Your task to perform on an android device: turn off improve location accuracy Image 0: 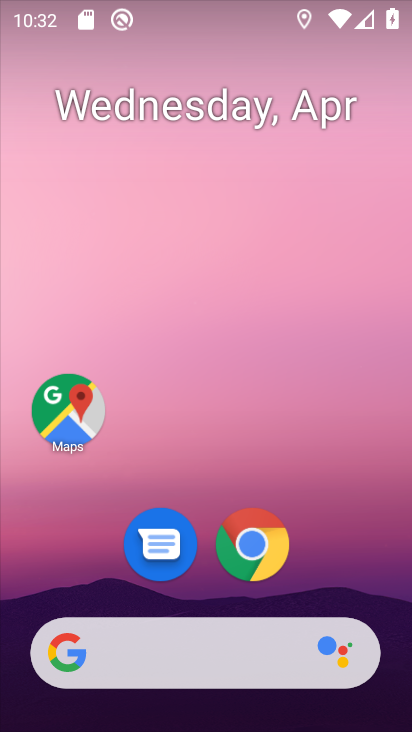
Step 0: drag from (325, 552) to (343, 0)
Your task to perform on an android device: turn off improve location accuracy Image 1: 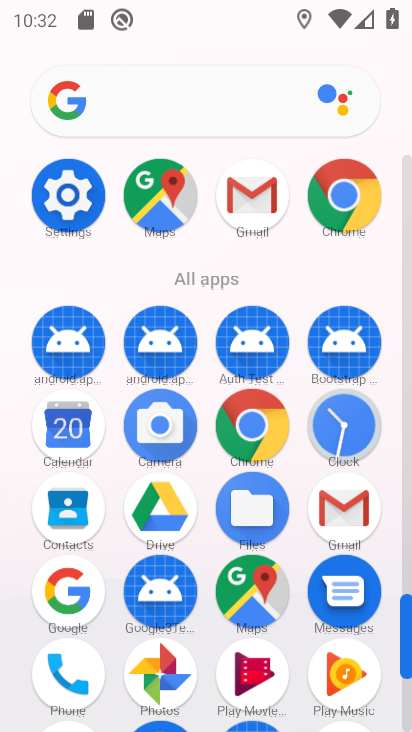
Step 1: click (80, 190)
Your task to perform on an android device: turn off improve location accuracy Image 2: 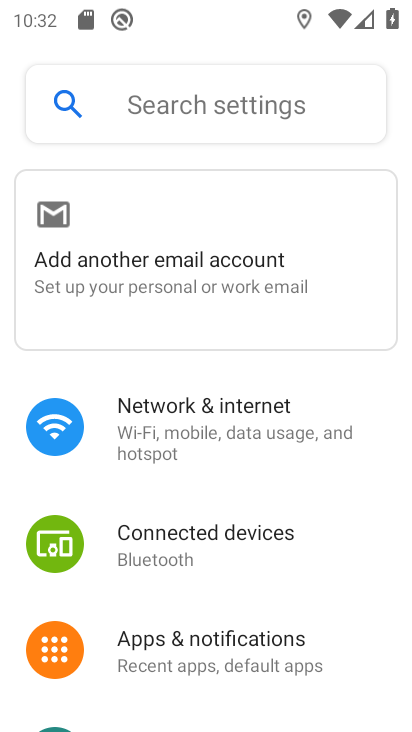
Step 2: drag from (277, 444) to (275, 107)
Your task to perform on an android device: turn off improve location accuracy Image 3: 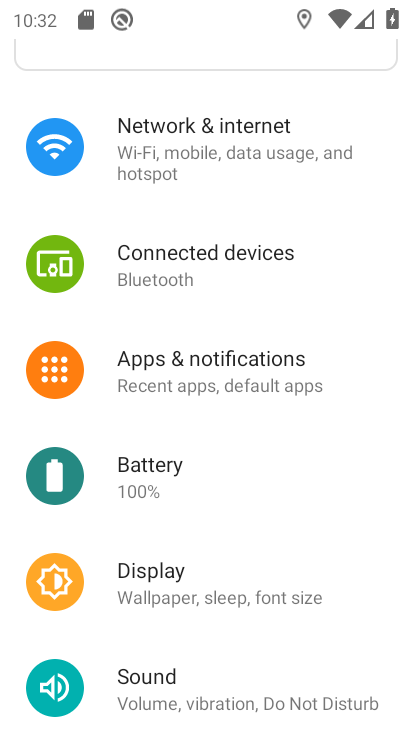
Step 3: drag from (81, 351) to (85, 160)
Your task to perform on an android device: turn off improve location accuracy Image 4: 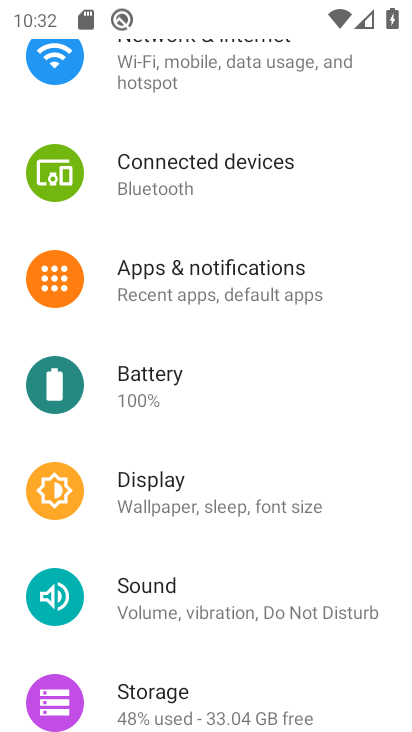
Step 4: drag from (220, 552) to (244, 94)
Your task to perform on an android device: turn off improve location accuracy Image 5: 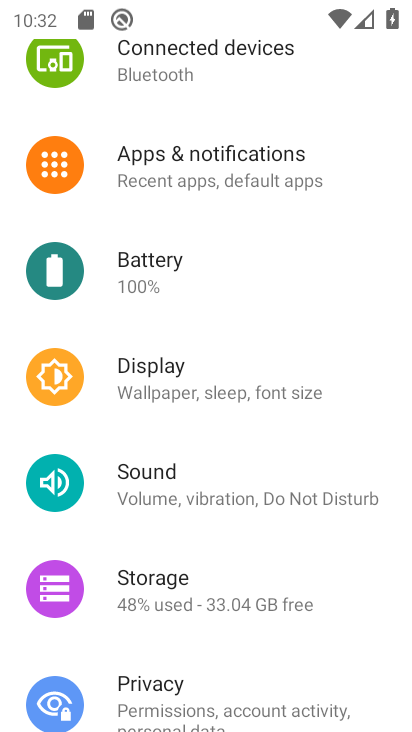
Step 5: drag from (238, 625) to (288, 255)
Your task to perform on an android device: turn off improve location accuracy Image 6: 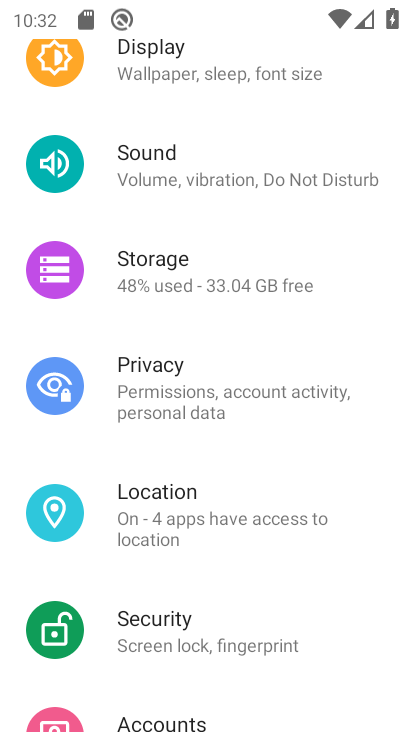
Step 6: click (222, 516)
Your task to perform on an android device: turn off improve location accuracy Image 7: 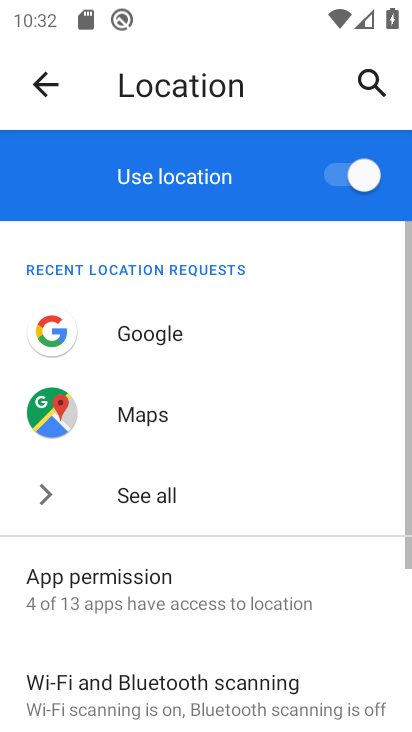
Step 7: drag from (328, 625) to (252, 234)
Your task to perform on an android device: turn off improve location accuracy Image 8: 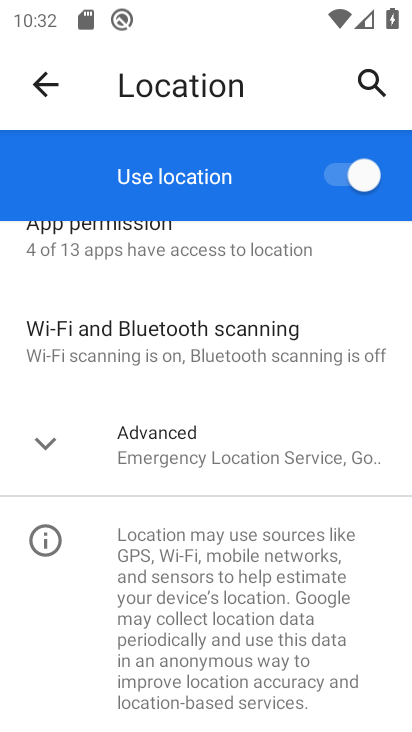
Step 8: click (224, 463)
Your task to perform on an android device: turn off improve location accuracy Image 9: 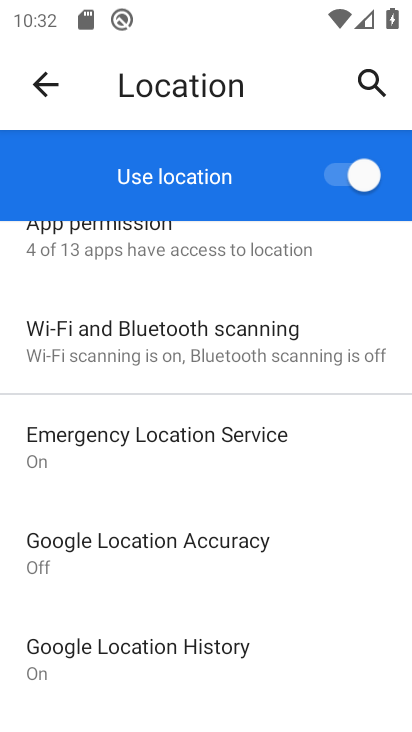
Step 9: click (179, 550)
Your task to perform on an android device: turn off improve location accuracy Image 10: 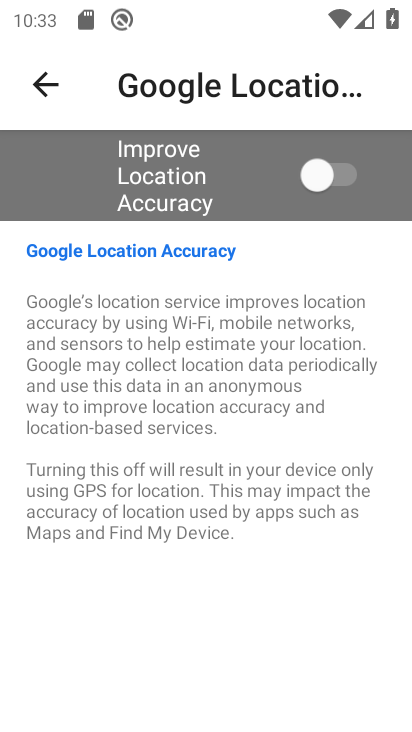
Step 10: click (316, 178)
Your task to perform on an android device: turn off improve location accuracy Image 11: 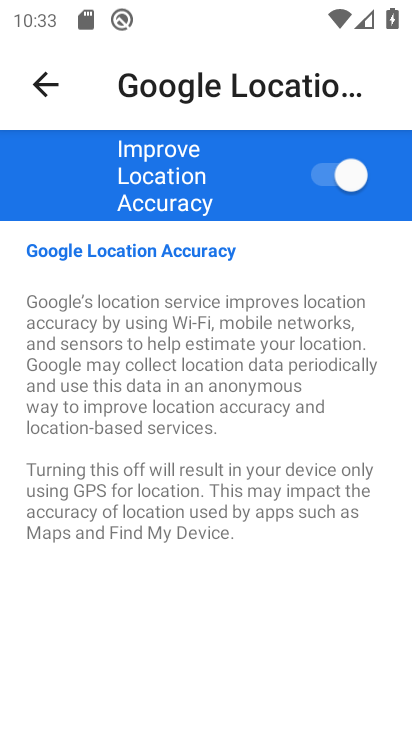
Step 11: click (324, 175)
Your task to perform on an android device: turn off improve location accuracy Image 12: 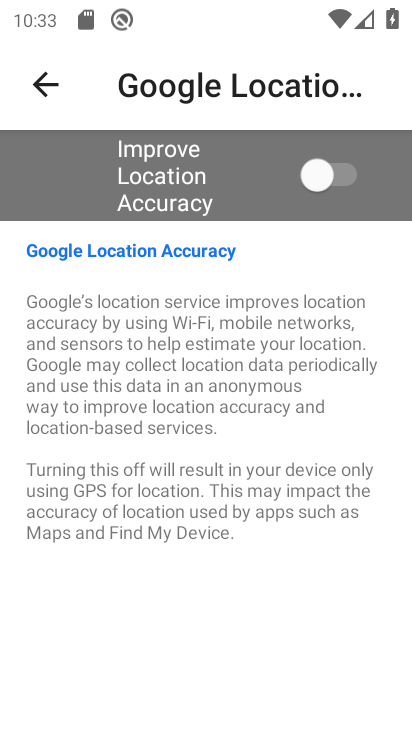
Step 12: task complete